Your task to perform on an android device: Open the map Image 0: 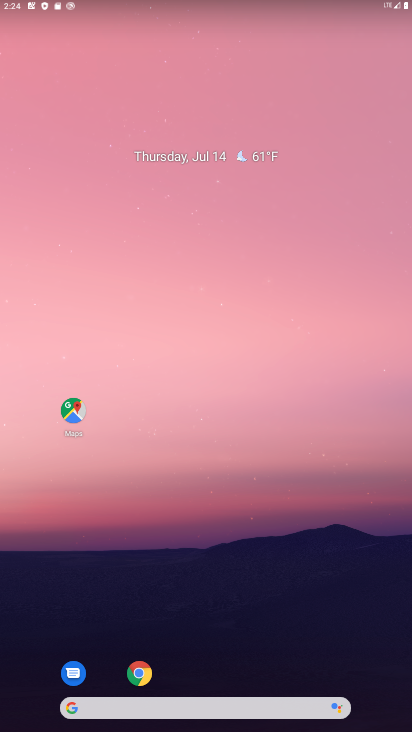
Step 0: click (67, 386)
Your task to perform on an android device: Open the map Image 1: 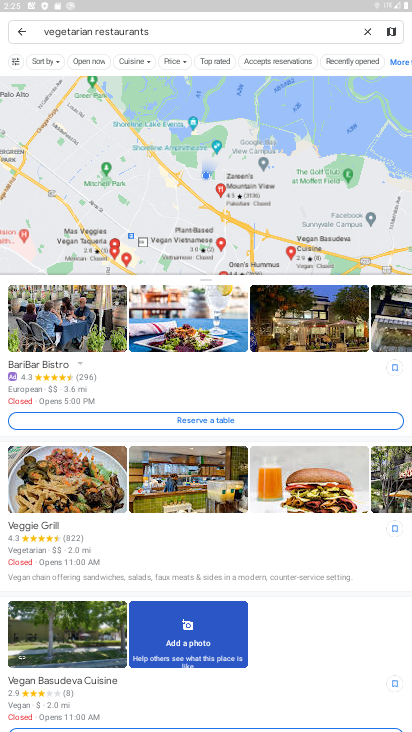
Step 1: task complete